Your task to perform on an android device: Turn on the flashlight Image 0: 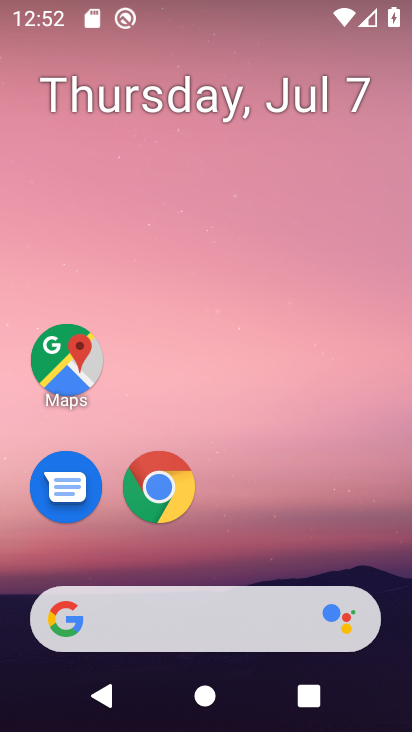
Step 0: drag from (336, 554) to (324, 113)
Your task to perform on an android device: Turn on the flashlight Image 1: 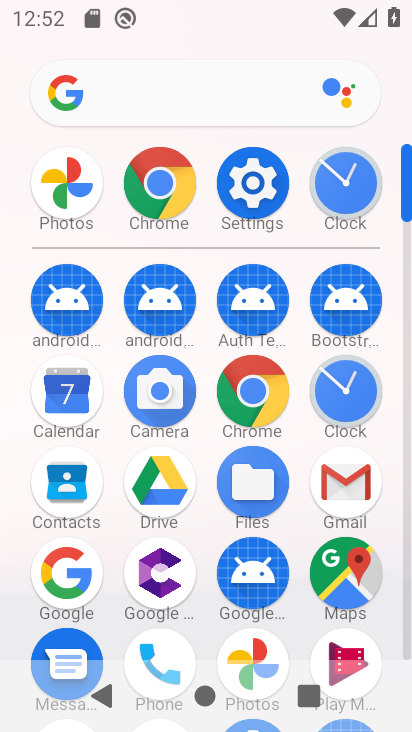
Step 1: press back button
Your task to perform on an android device: Turn on the flashlight Image 2: 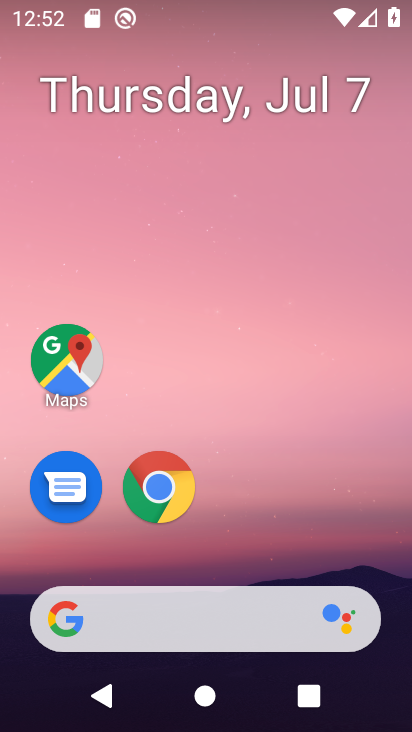
Step 2: drag from (243, 5) to (277, 455)
Your task to perform on an android device: Turn on the flashlight Image 3: 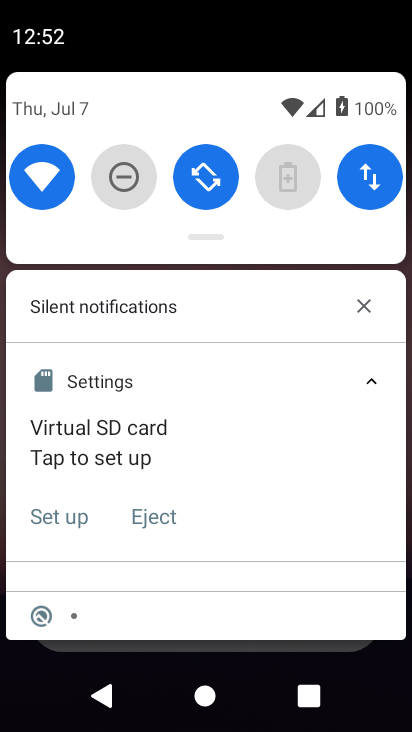
Step 3: drag from (235, 108) to (262, 368)
Your task to perform on an android device: Turn on the flashlight Image 4: 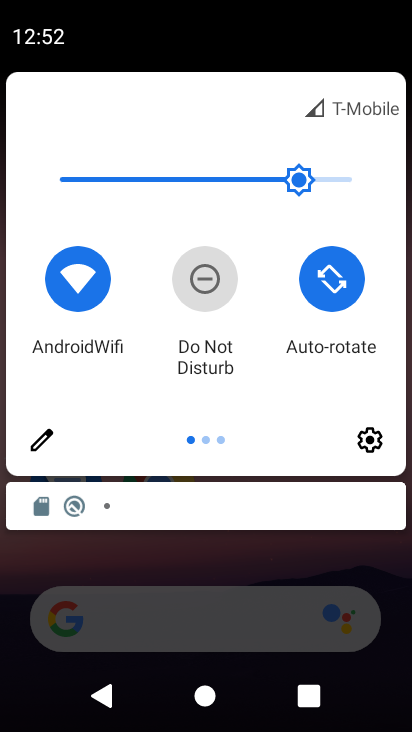
Step 4: click (44, 450)
Your task to perform on an android device: Turn on the flashlight Image 5: 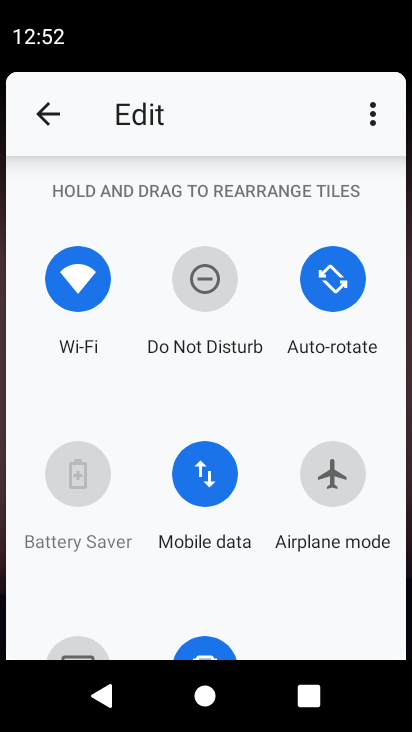
Step 5: task complete